Your task to perform on an android device: Open calendar and show me the third week of next month Image 0: 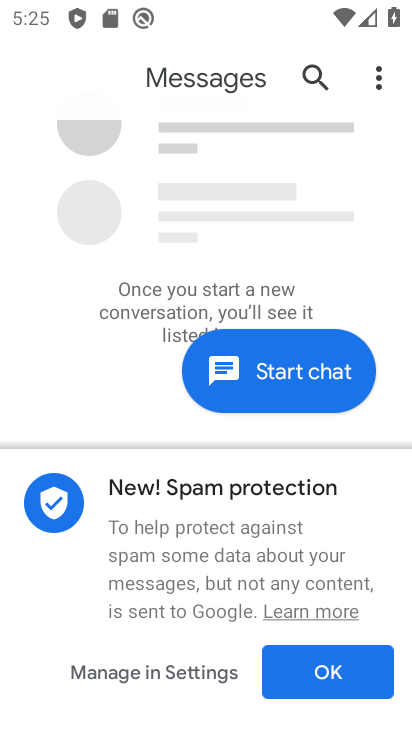
Step 0: press home button
Your task to perform on an android device: Open calendar and show me the third week of next month Image 1: 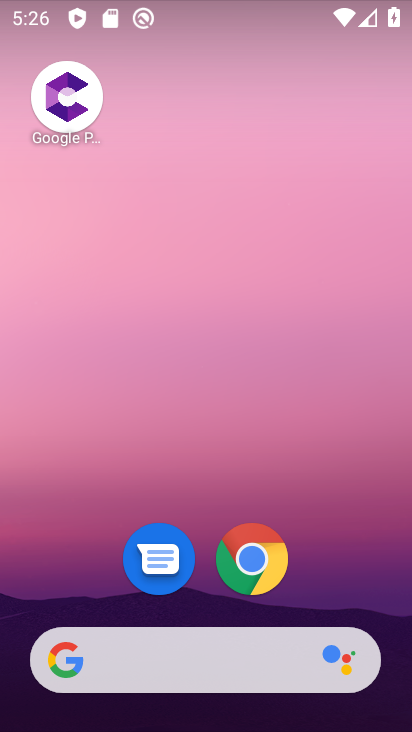
Step 1: drag from (389, 603) to (317, 65)
Your task to perform on an android device: Open calendar and show me the third week of next month Image 2: 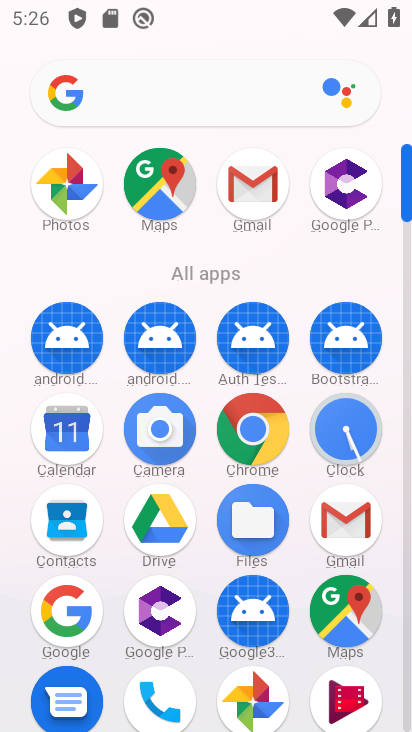
Step 2: click (66, 419)
Your task to perform on an android device: Open calendar and show me the third week of next month Image 3: 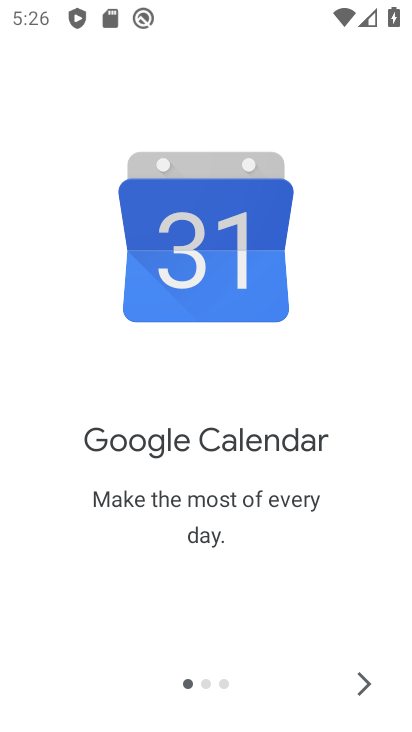
Step 3: click (380, 690)
Your task to perform on an android device: Open calendar and show me the third week of next month Image 4: 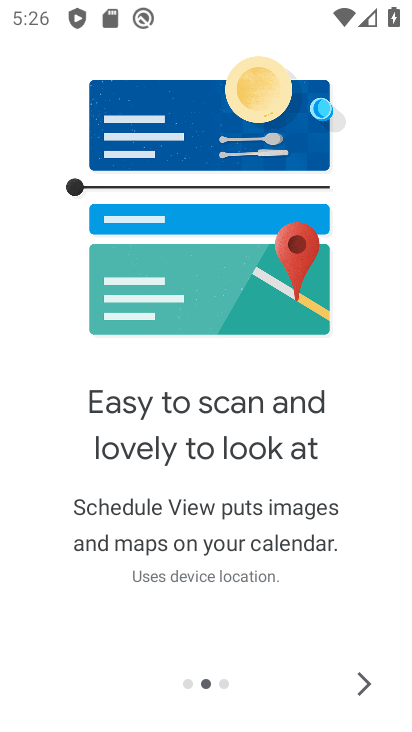
Step 4: click (366, 677)
Your task to perform on an android device: Open calendar and show me the third week of next month Image 5: 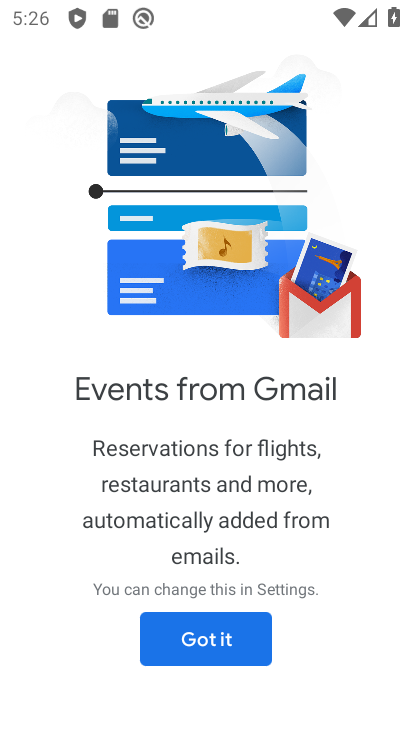
Step 5: click (366, 677)
Your task to perform on an android device: Open calendar and show me the third week of next month Image 6: 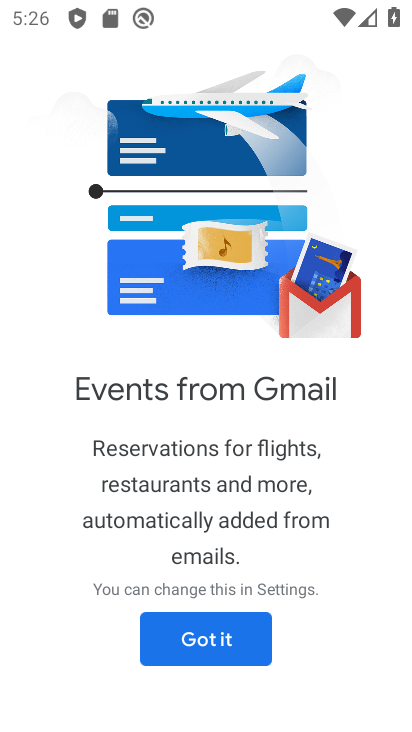
Step 6: click (215, 654)
Your task to perform on an android device: Open calendar and show me the third week of next month Image 7: 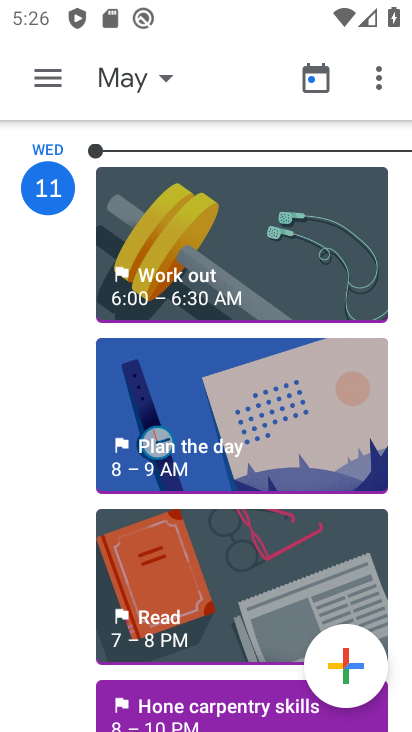
Step 7: click (163, 81)
Your task to perform on an android device: Open calendar and show me the third week of next month Image 8: 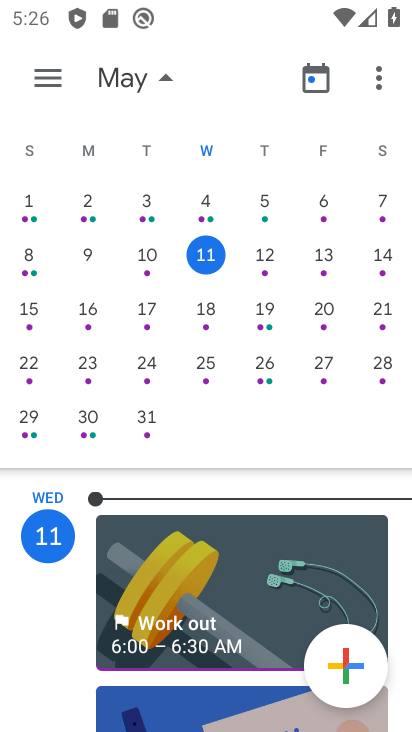
Step 8: drag from (380, 336) to (401, 451)
Your task to perform on an android device: Open calendar and show me the third week of next month Image 9: 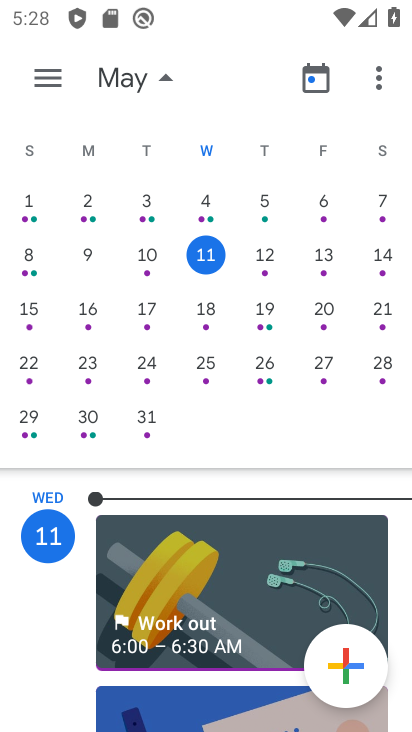
Step 9: drag from (199, 287) to (6, 331)
Your task to perform on an android device: Open calendar and show me the third week of next month Image 10: 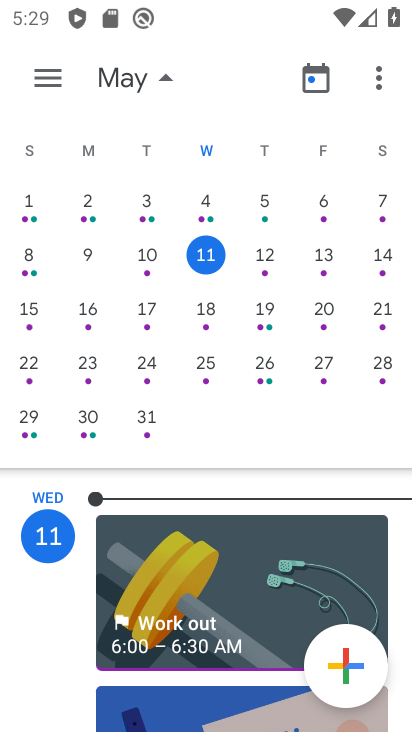
Step 10: drag from (396, 234) to (5, 404)
Your task to perform on an android device: Open calendar and show me the third week of next month Image 11: 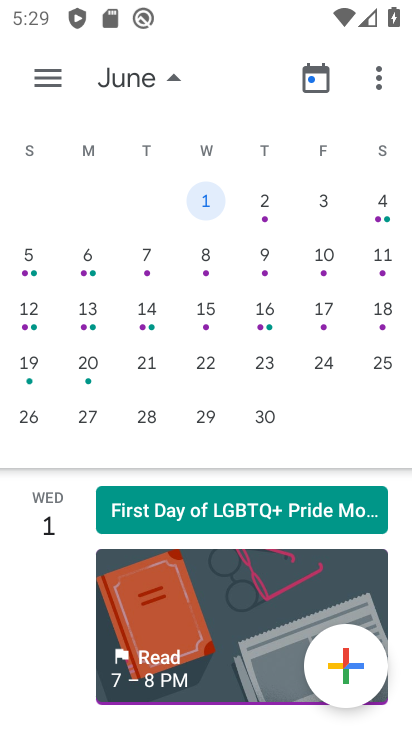
Step 11: click (224, 308)
Your task to perform on an android device: Open calendar and show me the third week of next month Image 12: 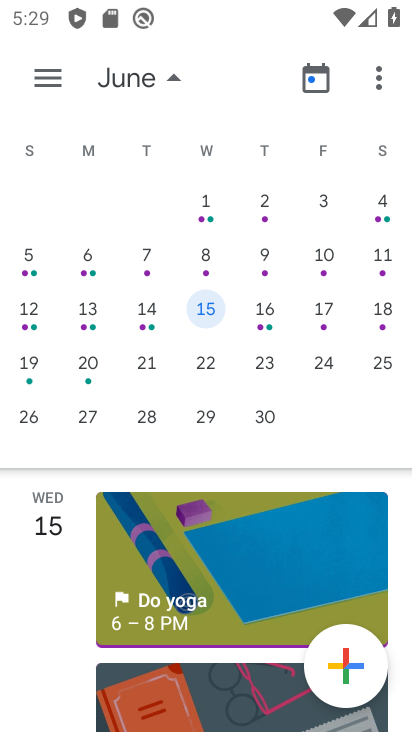
Step 12: task complete